Your task to perform on an android device: see creations saved in the google photos Image 0: 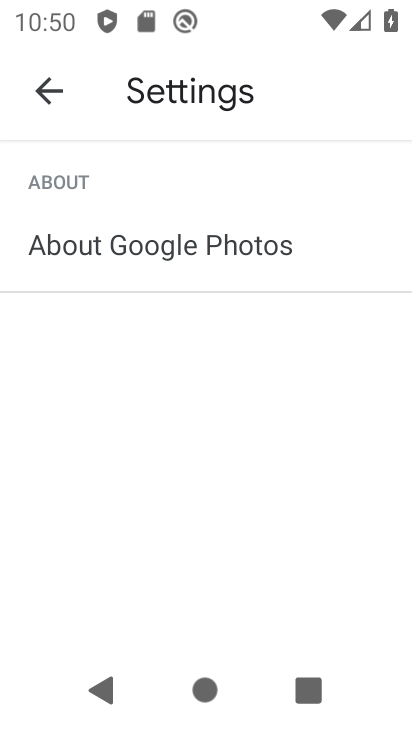
Step 0: press home button
Your task to perform on an android device: see creations saved in the google photos Image 1: 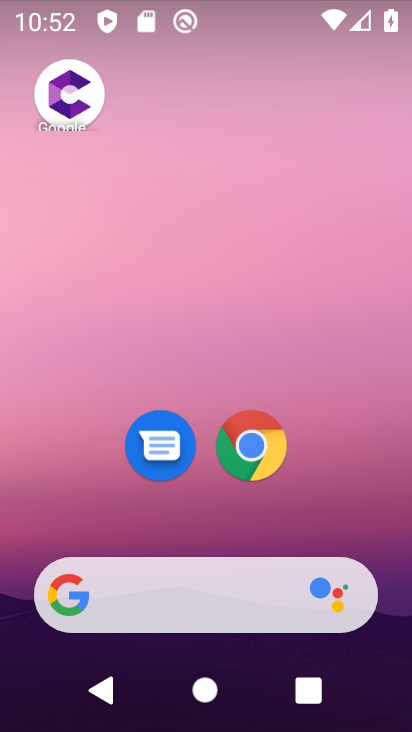
Step 1: drag from (190, 554) to (204, 176)
Your task to perform on an android device: see creations saved in the google photos Image 2: 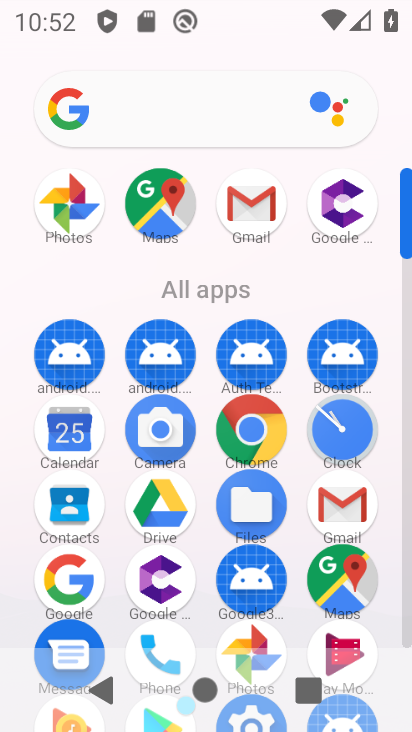
Step 2: click (257, 635)
Your task to perform on an android device: see creations saved in the google photos Image 3: 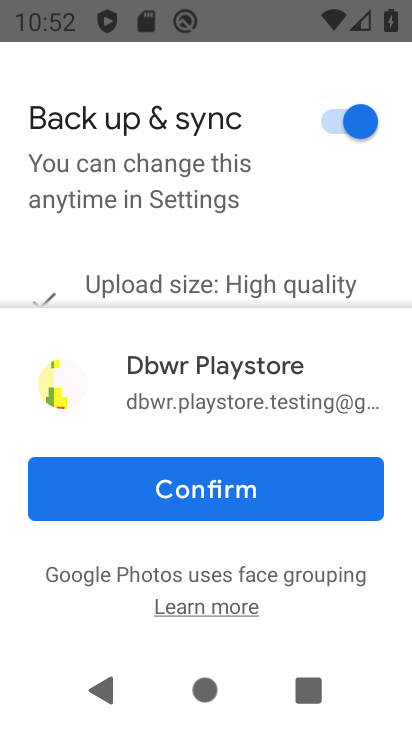
Step 3: click (267, 485)
Your task to perform on an android device: see creations saved in the google photos Image 4: 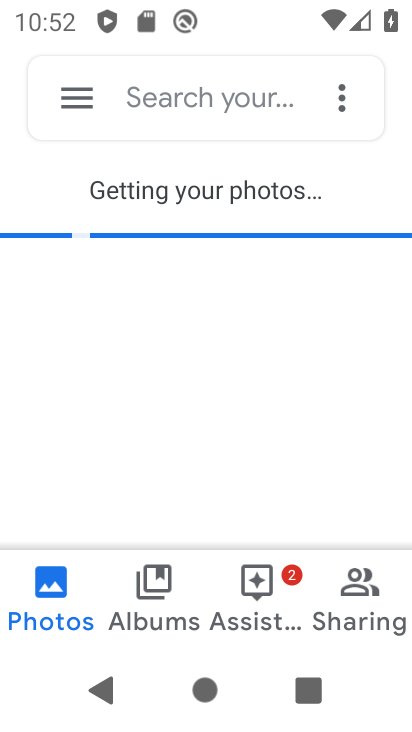
Step 4: click (151, 590)
Your task to perform on an android device: see creations saved in the google photos Image 5: 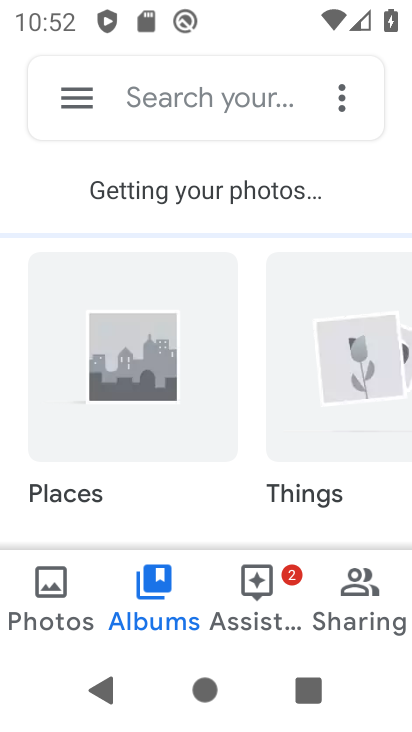
Step 5: task complete